Your task to perform on an android device: open app "Duolingo: language lessons" (install if not already installed) and go to login screen Image 0: 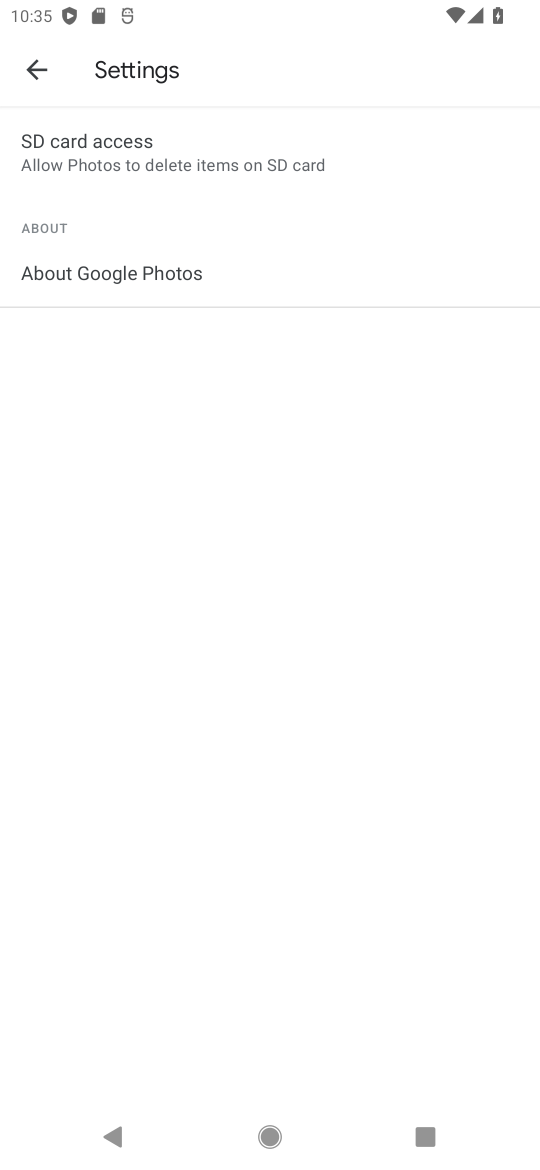
Step 0: press home button
Your task to perform on an android device: open app "Duolingo: language lessons" (install if not already installed) and go to login screen Image 1: 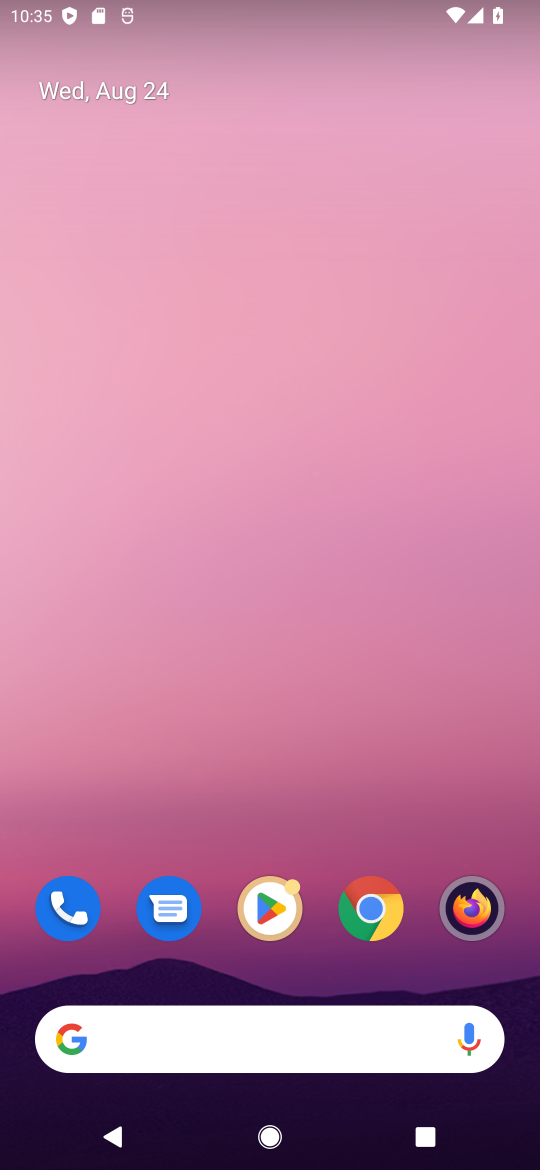
Step 1: click (246, 915)
Your task to perform on an android device: open app "Duolingo: language lessons" (install if not already installed) and go to login screen Image 2: 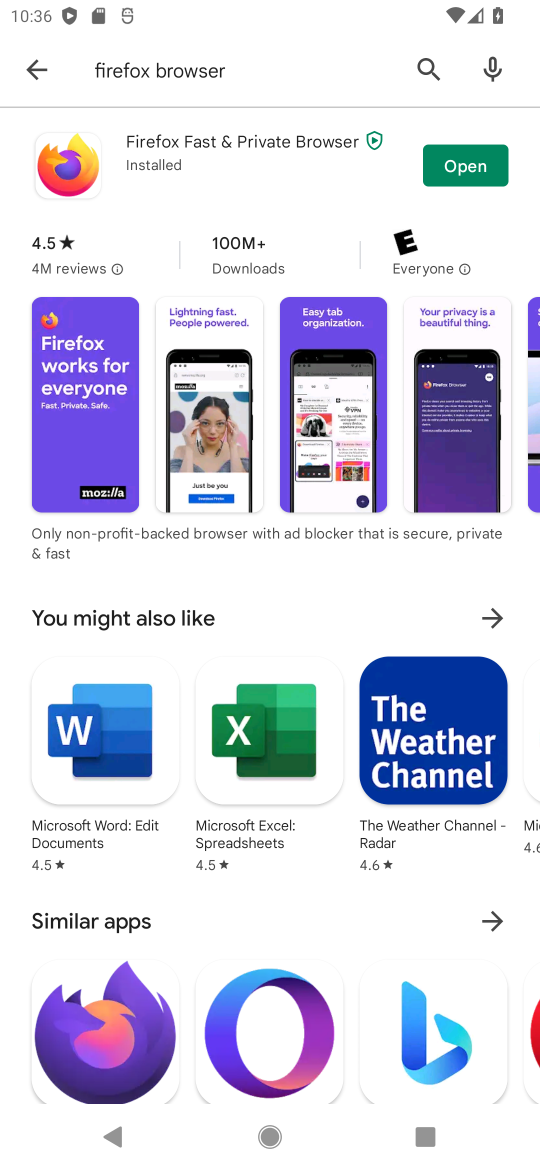
Step 2: click (44, 59)
Your task to perform on an android device: open app "Duolingo: language lessons" (install if not already installed) and go to login screen Image 3: 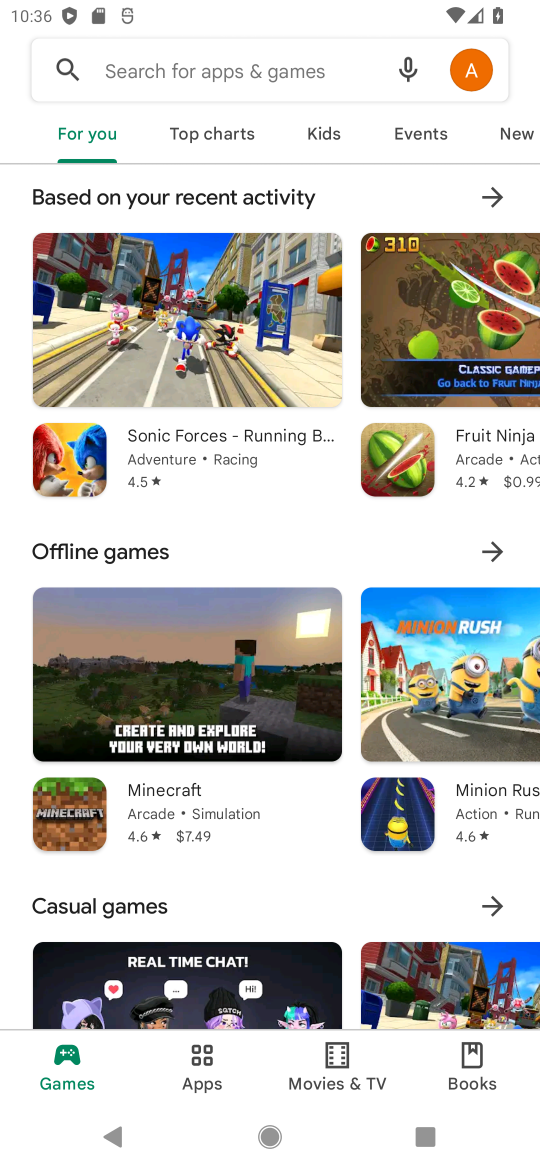
Step 3: click (133, 62)
Your task to perform on an android device: open app "Duolingo: language lessons" (install if not already installed) and go to login screen Image 4: 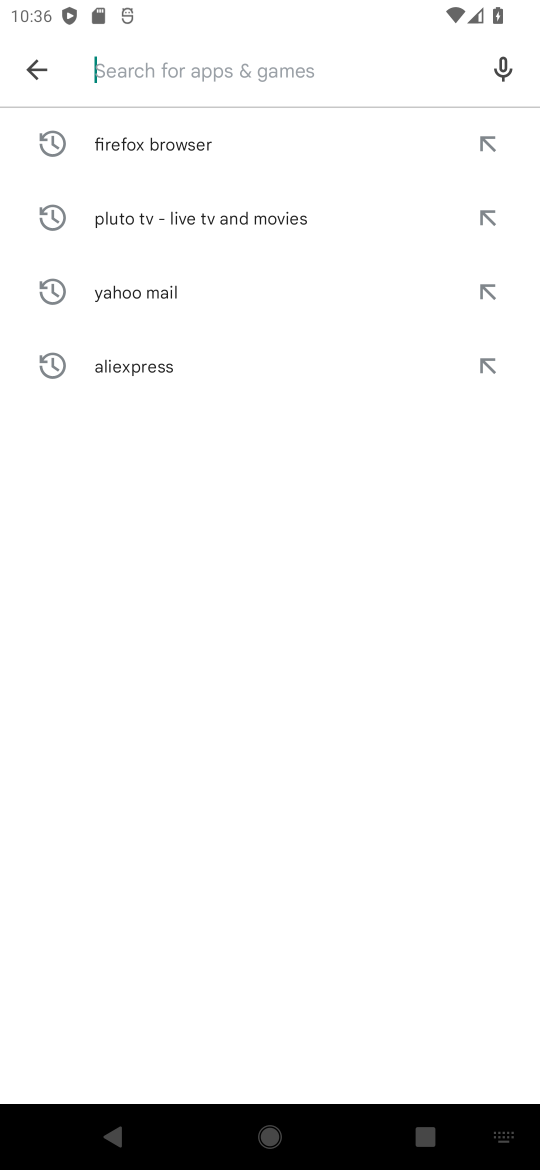
Step 4: type "Duolingo"
Your task to perform on an android device: open app "Duolingo: language lessons" (install if not already installed) and go to login screen Image 5: 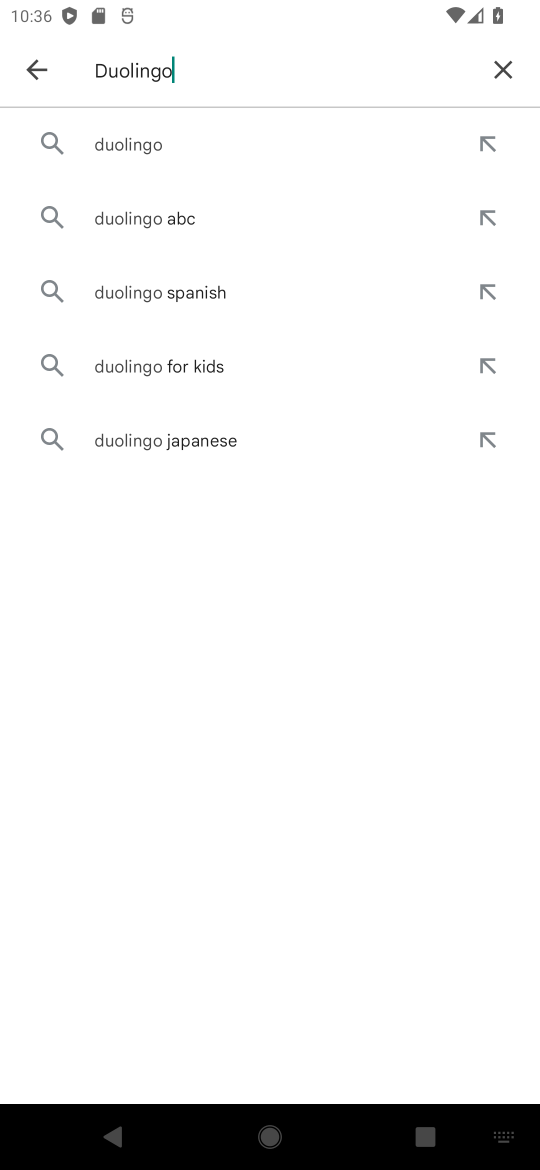
Step 5: click (224, 163)
Your task to perform on an android device: open app "Duolingo: language lessons" (install if not already installed) and go to login screen Image 6: 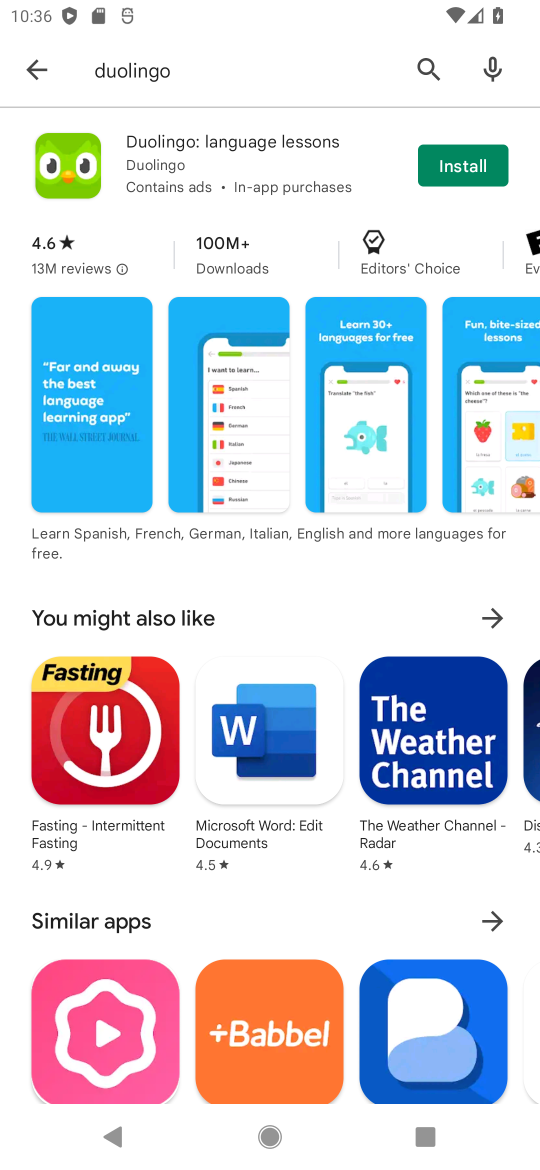
Step 6: click (446, 180)
Your task to perform on an android device: open app "Duolingo: language lessons" (install if not already installed) and go to login screen Image 7: 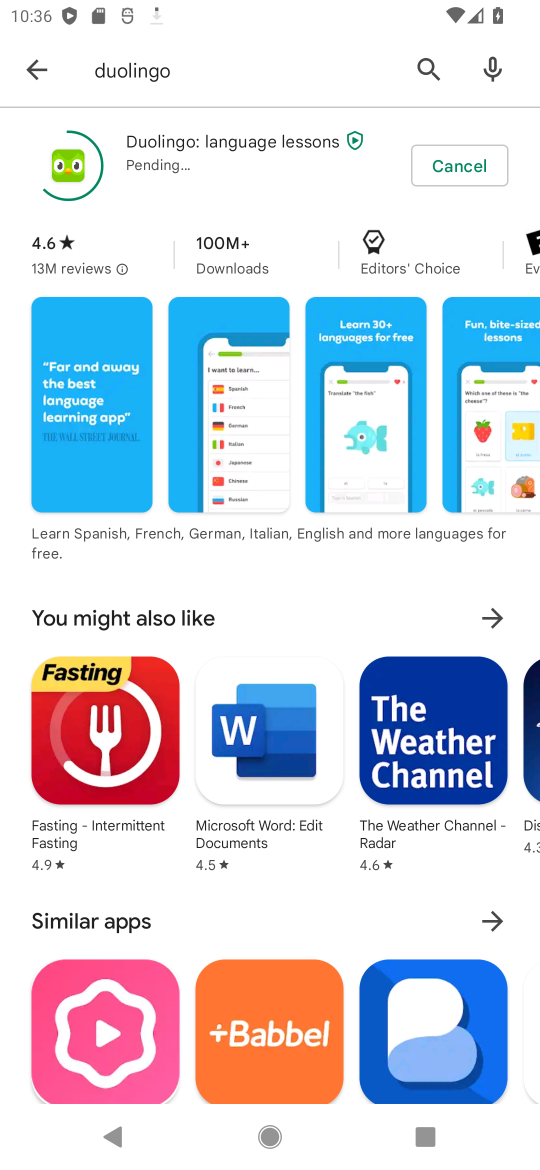
Step 7: click (131, 143)
Your task to perform on an android device: open app "Duolingo: language lessons" (install if not already installed) and go to login screen Image 8: 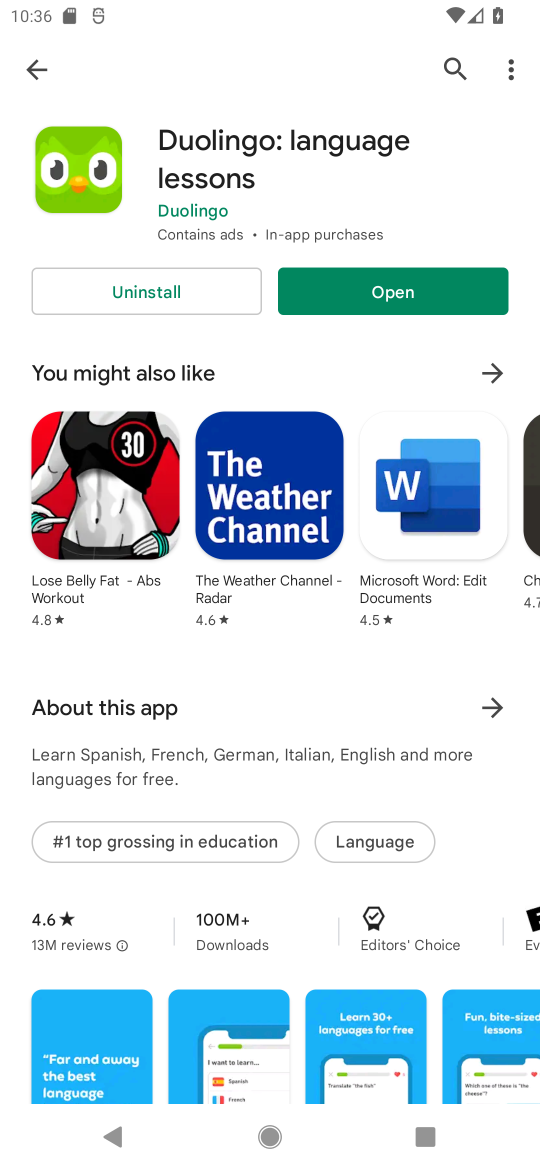
Step 8: click (401, 303)
Your task to perform on an android device: open app "Duolingo: language lessons" (install if not already installed) and go to login screen Image 9: 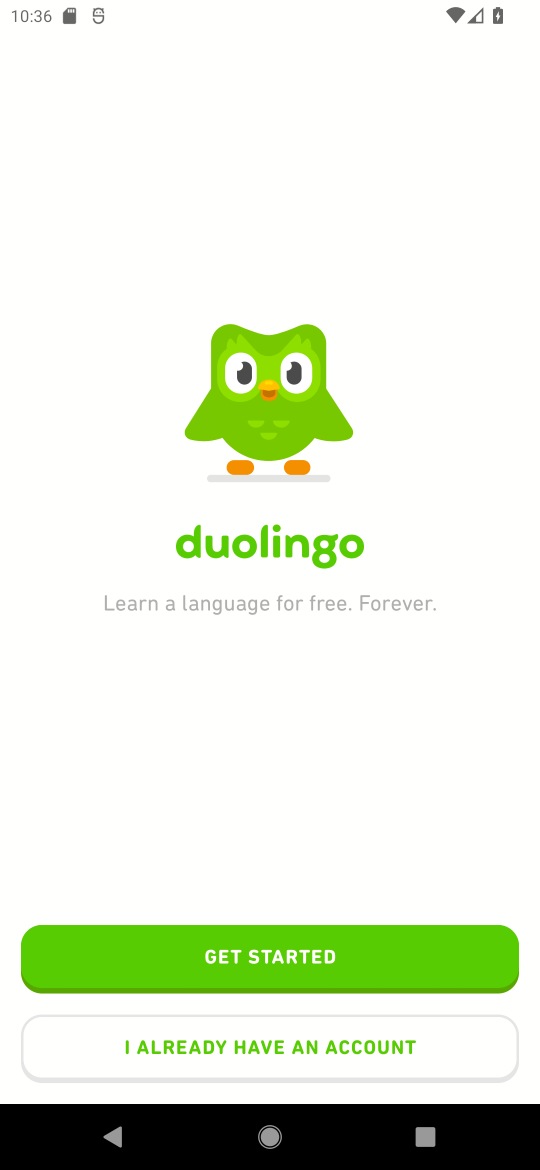
Step 9: click (227, 966)
Your task to perform on an android device: open app "Duolingo: language lessons" (install if not already installed) and go to login screen Image 10: 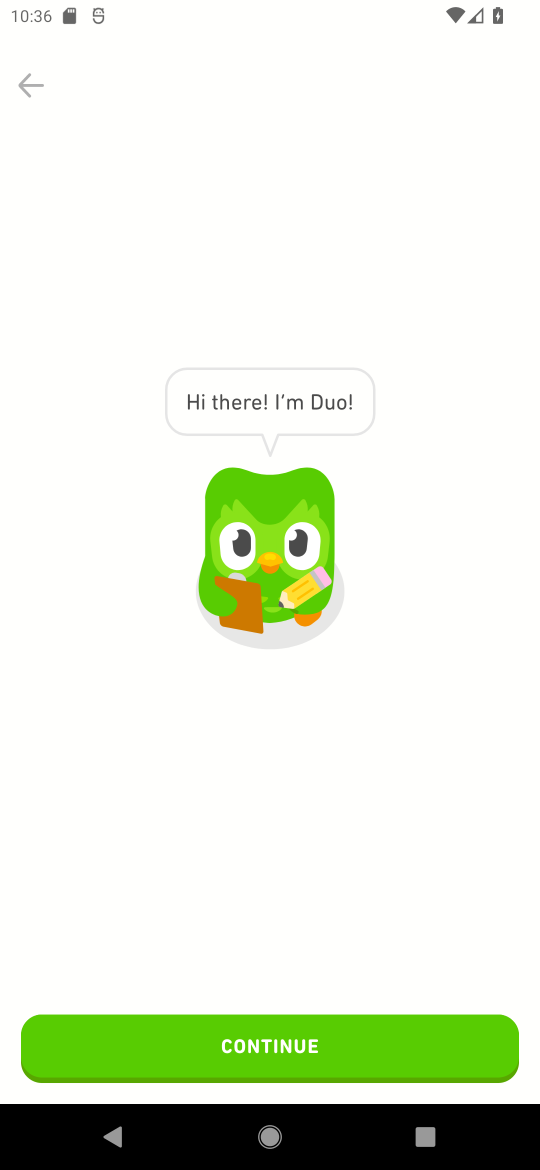
Step 10: click (232, 1016)
Your task to perform on an android device: open app "Duolingo: language lessons" (install if not already installed) and go to login screen Image 11: 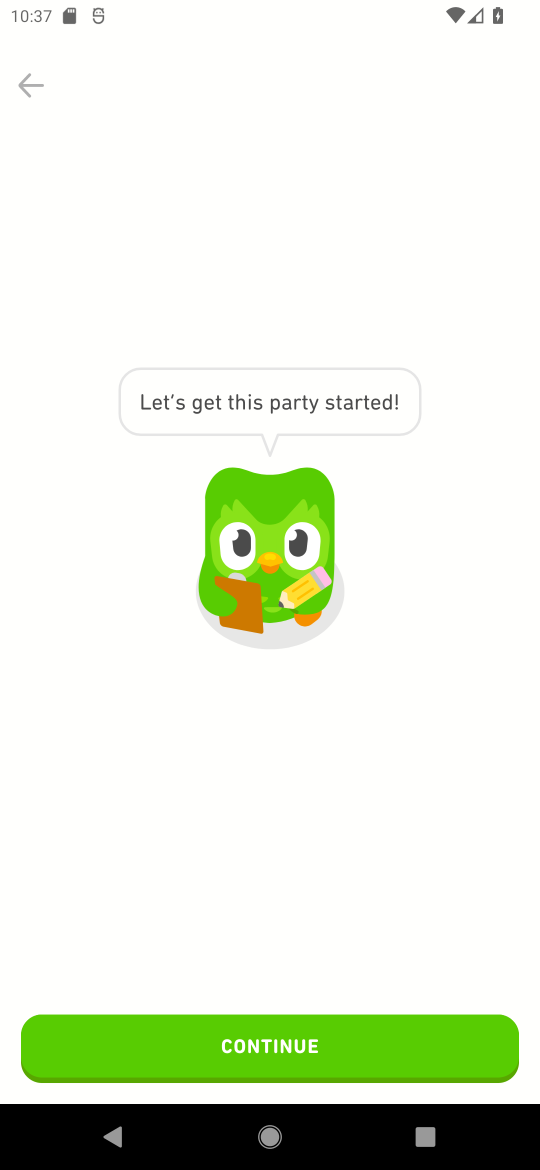
Step 11: click (254, 1052)
Your task to perform on an android device: open app "Duolingo: language lessons" (install if not already installed) and go to login screen Image 12: 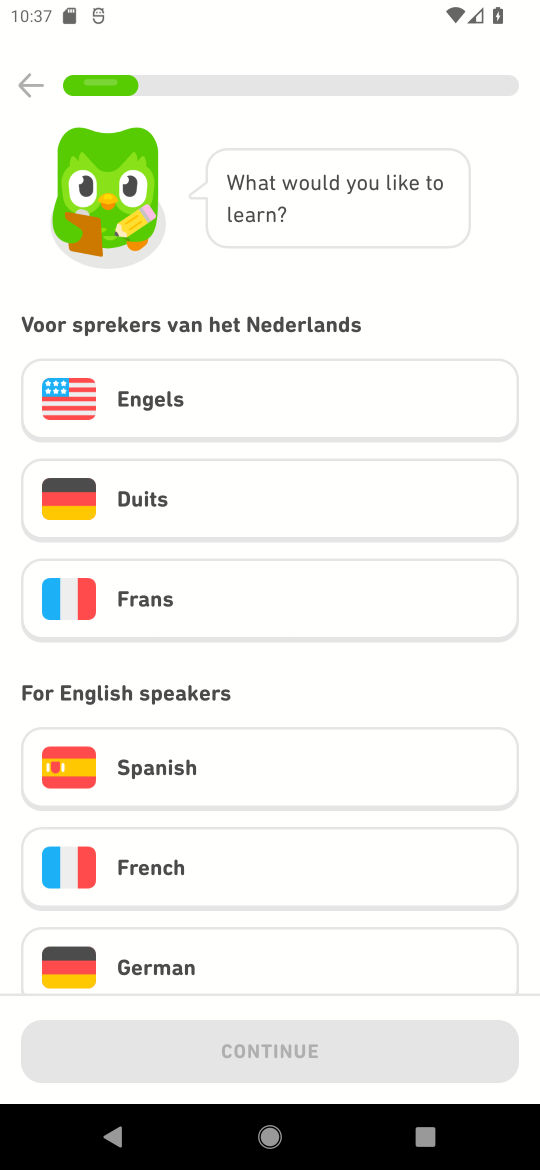
Step 12: task complete